Your task to perform on an android device: turn pop-ups on in chrome Image 0: 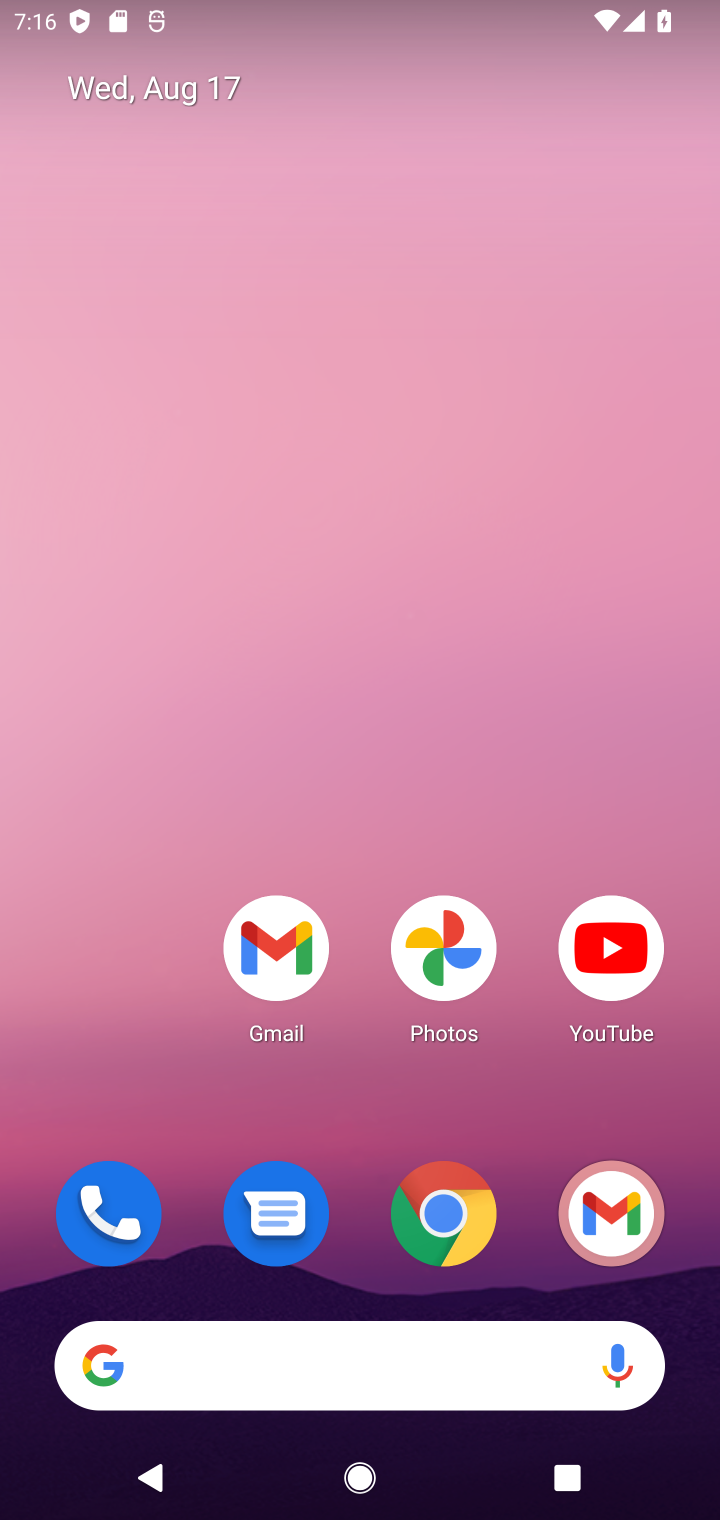
Step 0: click (427, 1256)
Your task to perform on an android device: turn pop-ups on in chrome Image 1: 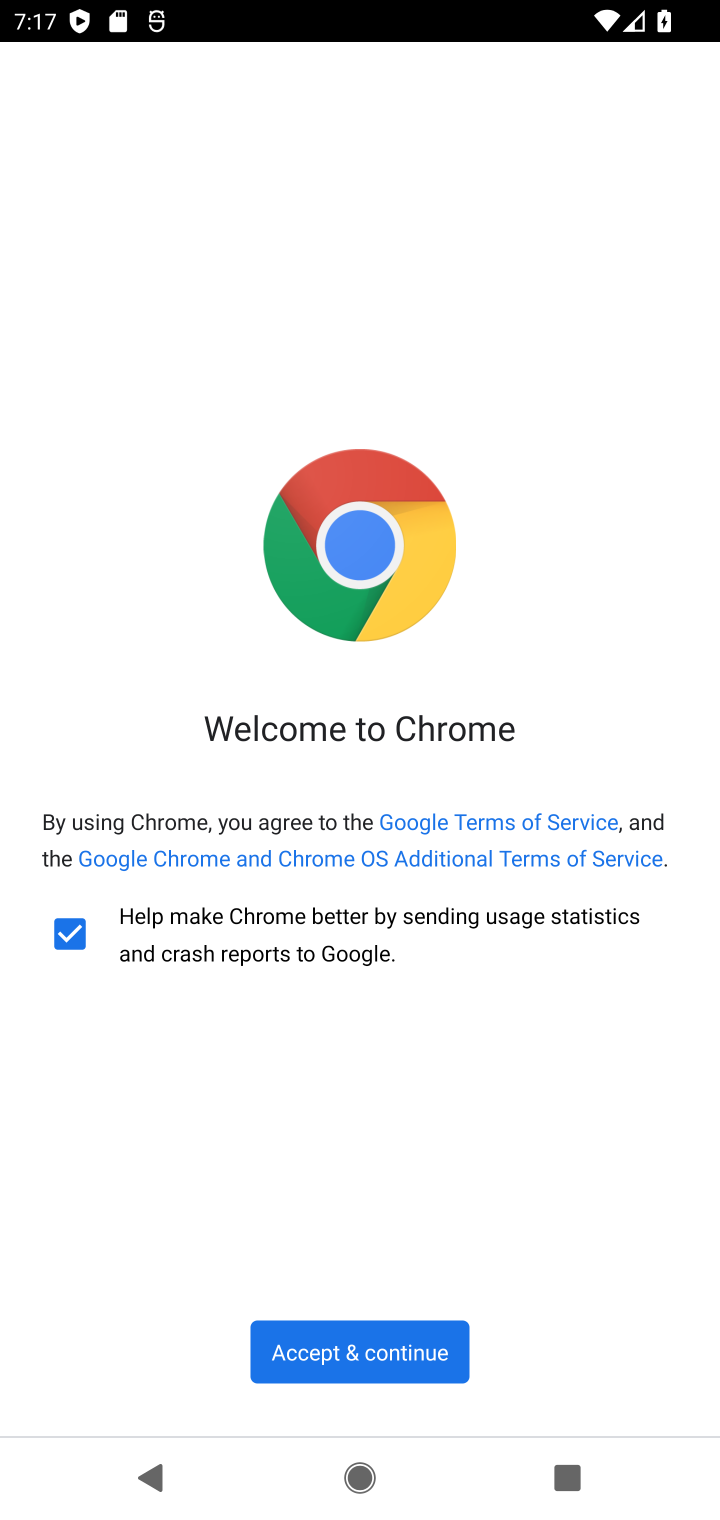
Step 1: click (372, 1377)
Your task to perform on an android device: turn pop-ups on in chrome Image 2: 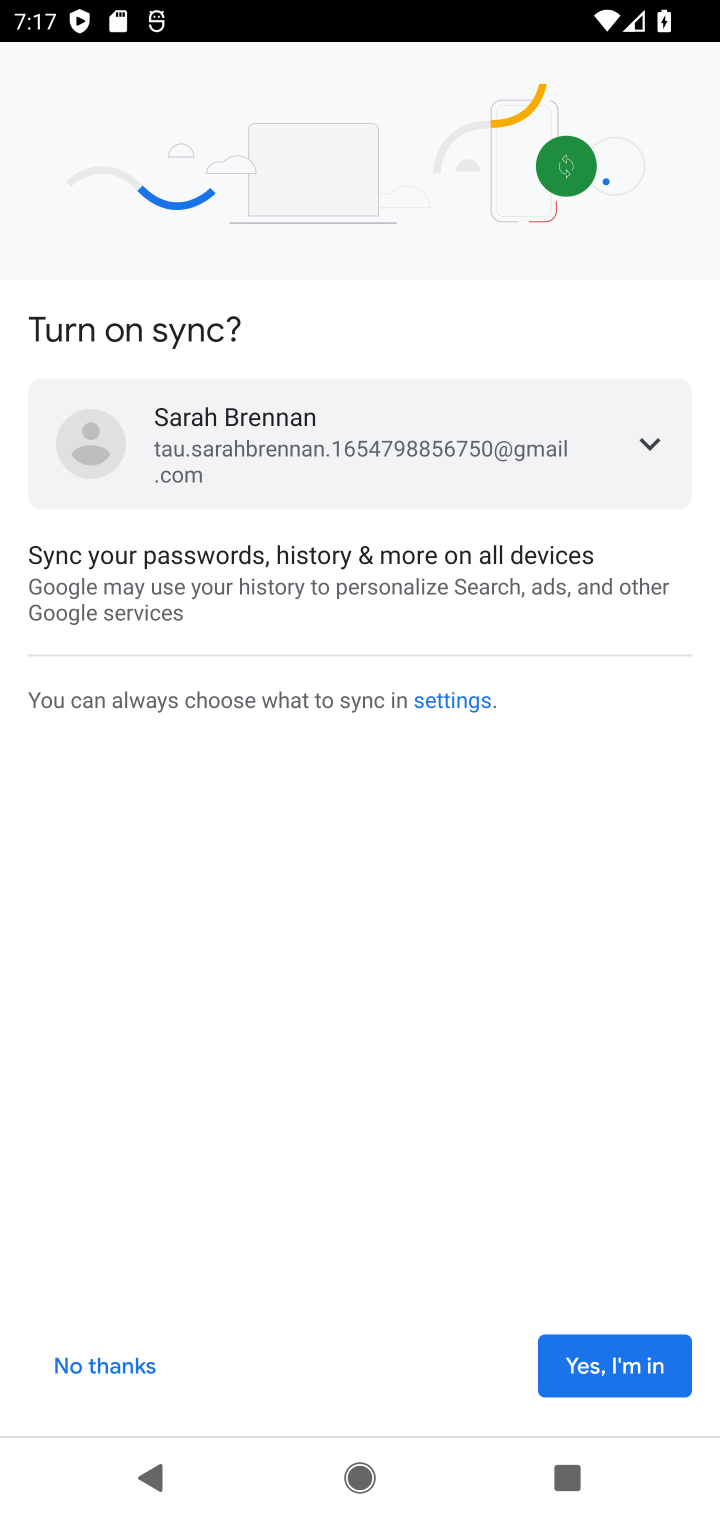
Step 2: click (552, 1385)
Your task to perform on an android device: turn pop-ups on in chrome Image 3: 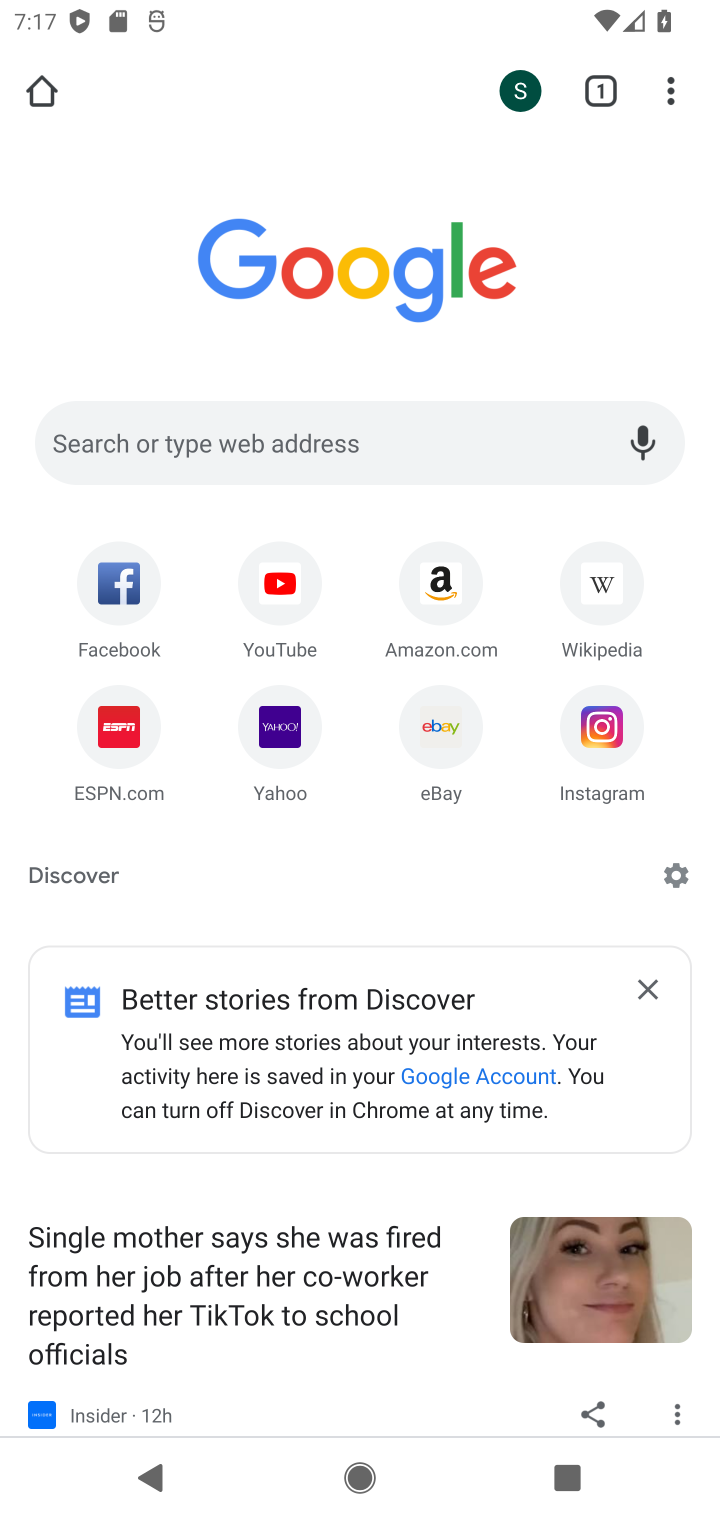
Step 3: task complete